Your task to perform on an android device: When is my next meeting? Image 0: 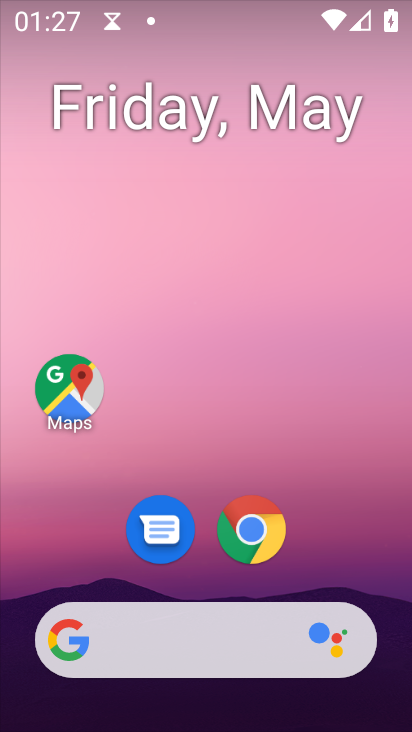
Step 0: drag from (341, 485) to (333, 249)
Your task to perform on an android device: When is my next meeting? Image 1: 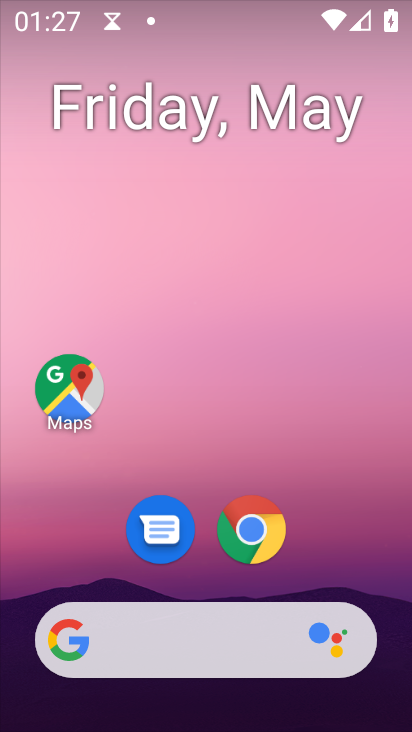
Step 1: drag from (245, 589) to (272, 219)
Your task to perform on an android device: When is my next meeting? Image 2: 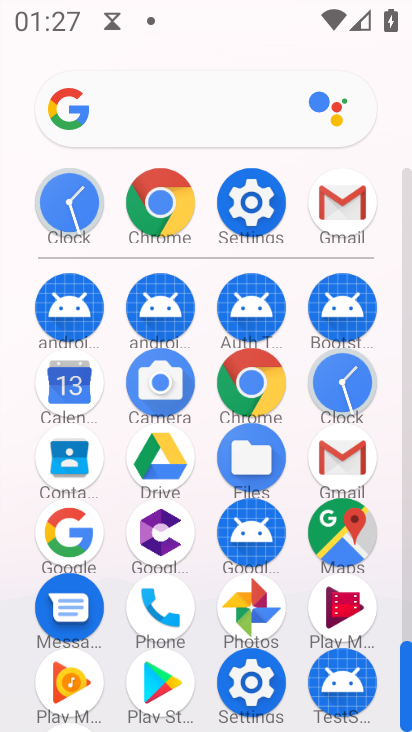
Step 2: click (66, 387)
Your task to perform on an android device: When is my next meeting? Image 3: 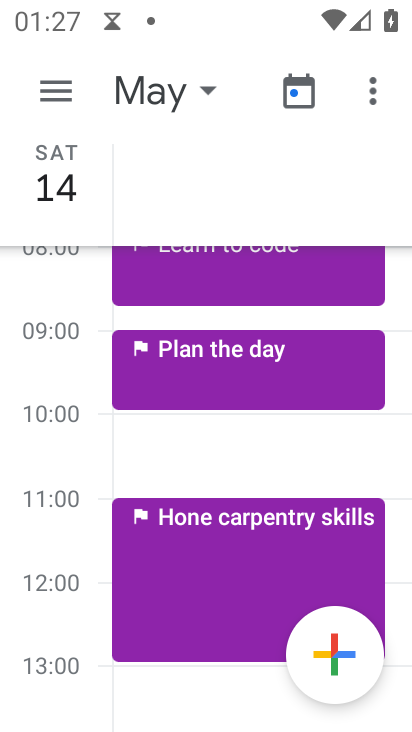
Step 3: task complete